Your task to perform on an android device: turn on wifi Image 0: 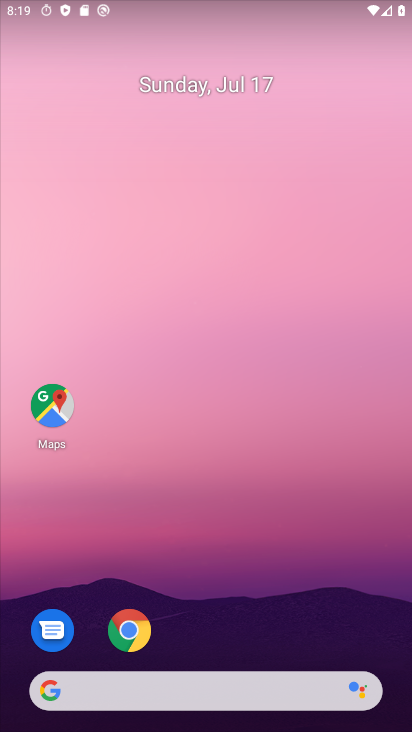
Step 0: drag from (35, 715) to (312, 6)
Your task to perform on an android device: turn on wifi Image 1: 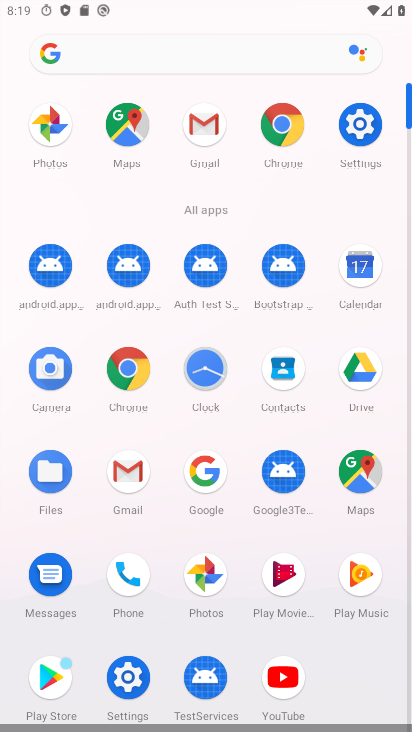
Step 1: click (119, 672)
Your task to perform on an android device: turn on wifi Image 2: 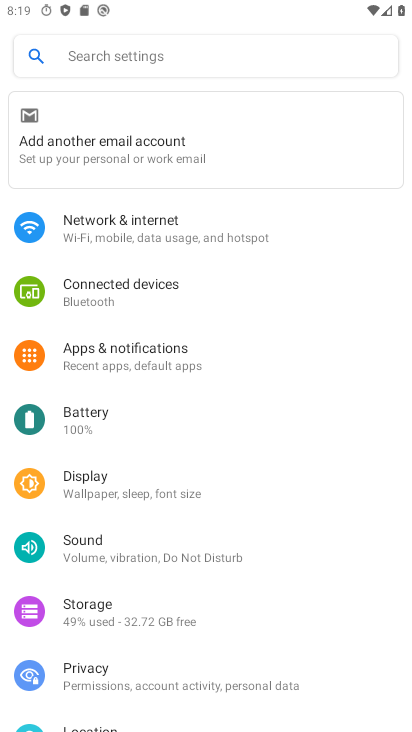
Step 2: click (149, 233)
Your task to perform on an android device: turn on wifi Image 3: 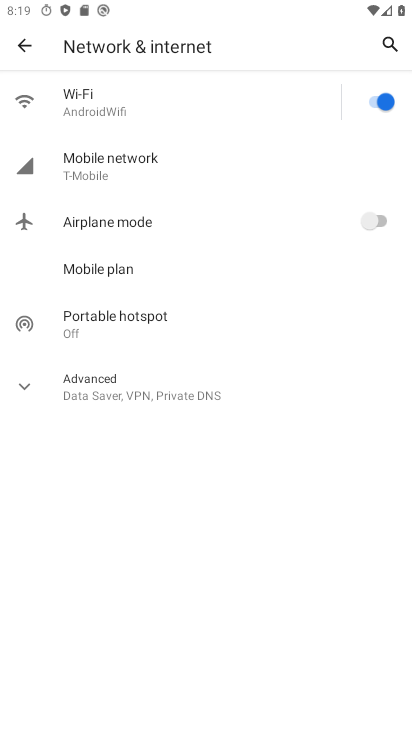
Step 3: click (101, 121)
Your task to perform on an android device: turn on wifi Image 4: 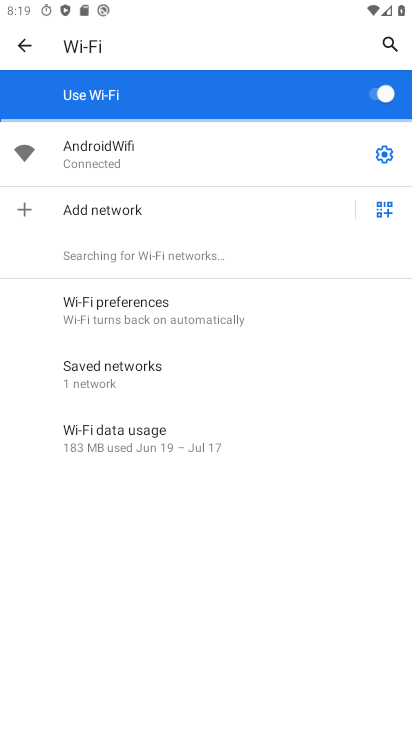
Step 4: task complete